Your task to perform on an android device: set the timer Image 0: 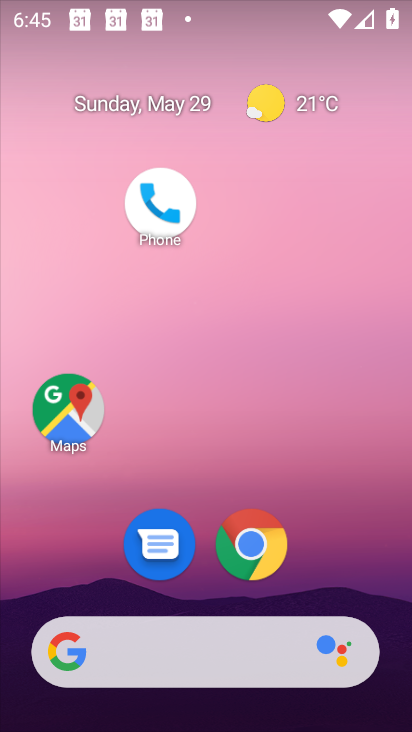
Step 0: drag from (319, 564) to (262, 268)
Your task to perform on an android device: set the timer Image 1: 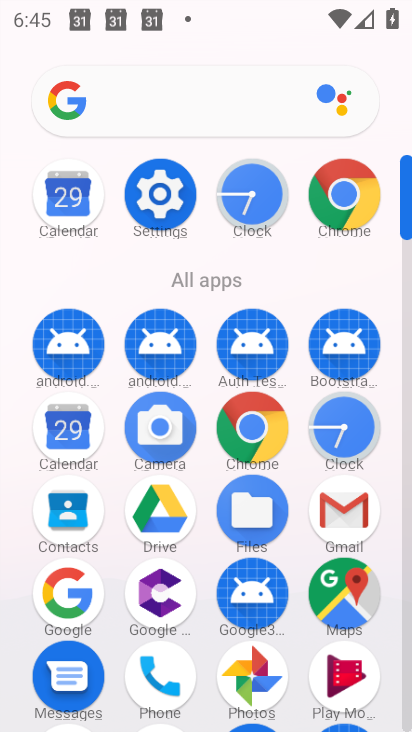
Step 1: click (250, 195)
Your task to perform on an android device: set the timer Image 2: 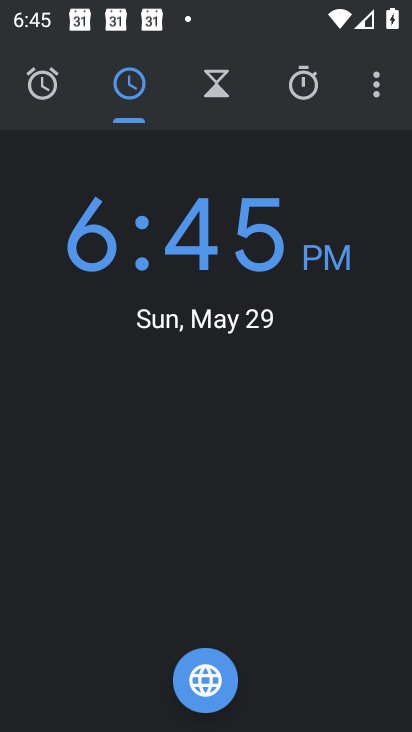
Step 2: click (218, 88)
Your task to perform on an android device: set the timer Image 3: 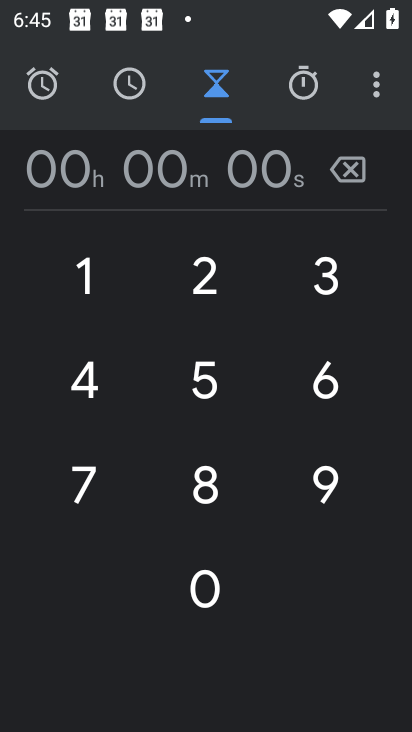
Step 3: click (103, 273)
Your task to perform on an android device: set the timer Image 4: 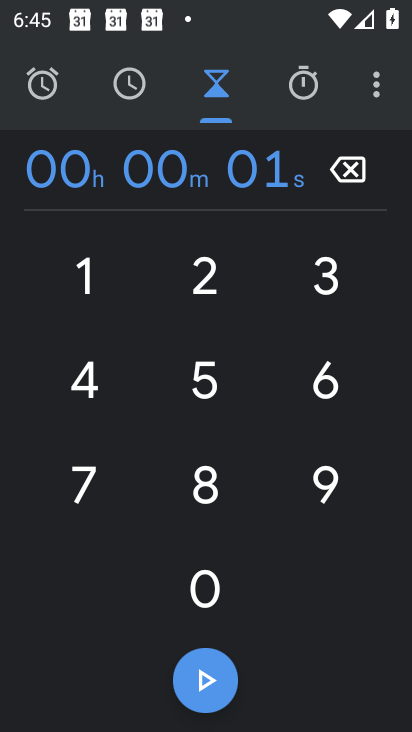
Step 4: click (103, 273)
Your task to perform on an android device: set the timer Image 5: 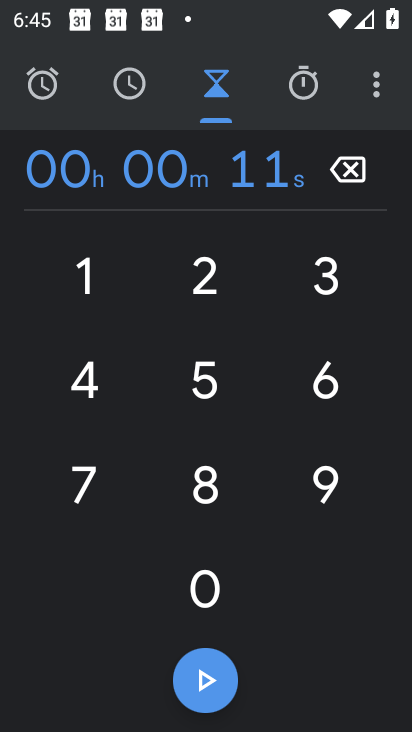
Step 5: click (103, 273)
Your task to perform on an android device: set the timer Image 6: 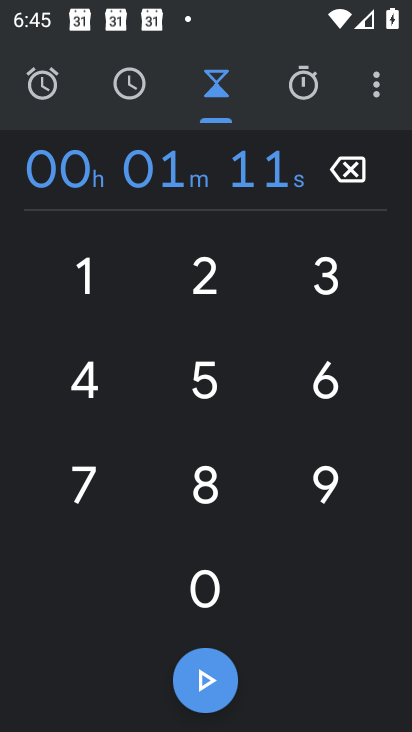
Step 6: click (103, 273)
Your task to perform on an android device: set the timer Image 7: 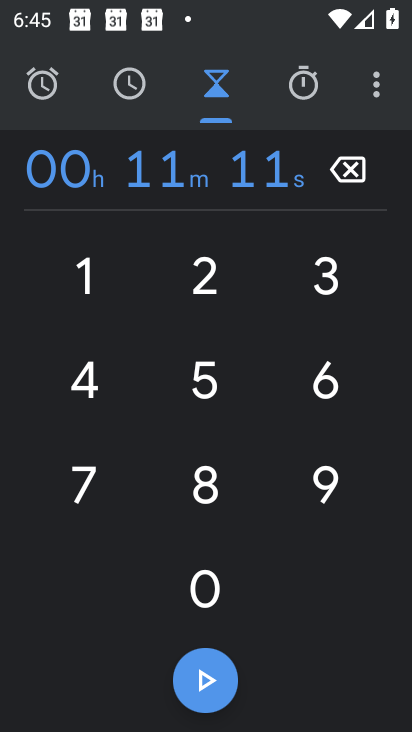
Step 7: click (103, 273)
Your task to perform on an android device: set the timer Image 8: 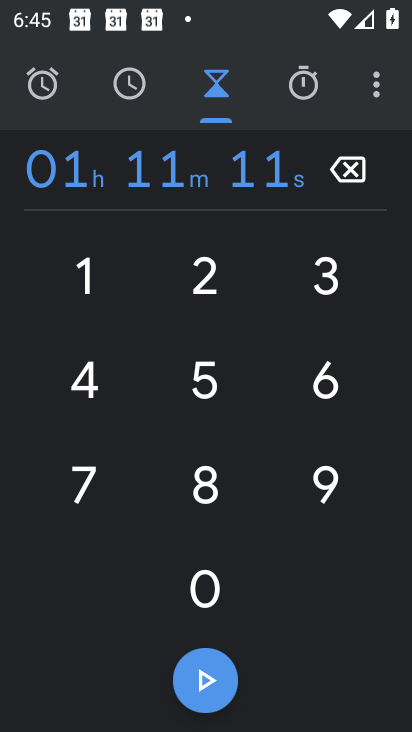
Step 8: click (103, 273)
Your task to perform on an android device: set the timer Image 9: 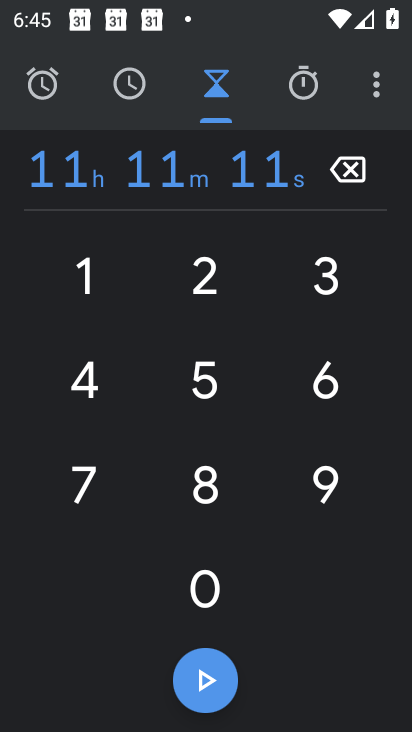
Step 9: task complete